Your task to perform on an android device: Set the phone to "Do not disturb". Image 0: 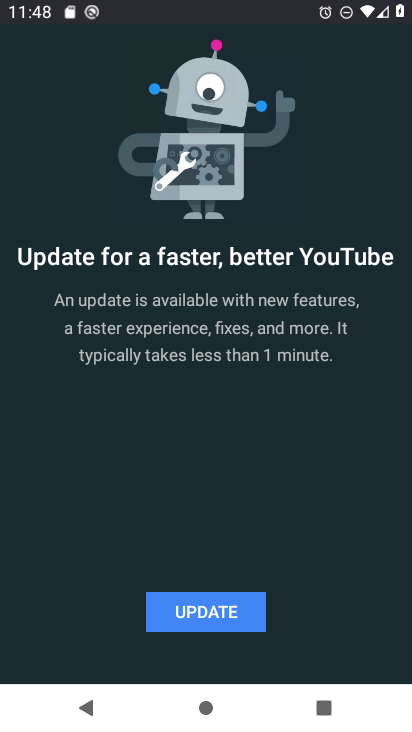
Step 0: press home button
Your task to perform on an android device: Set the phone to "Do not disturb". Image 1: 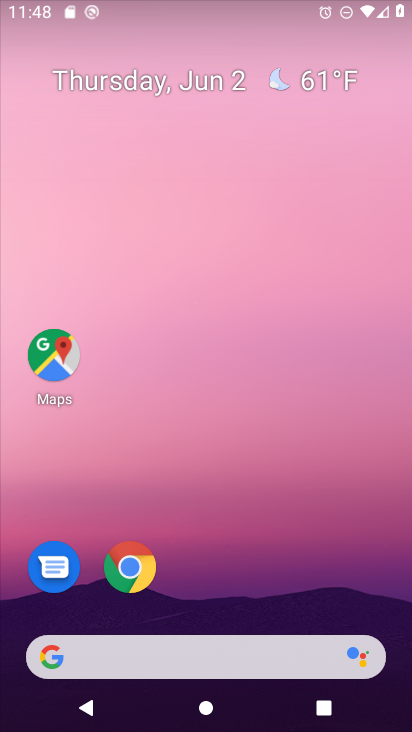
Step 1: task complete